Your task to perform on an android device: turn off improve location accuracy Image 0: 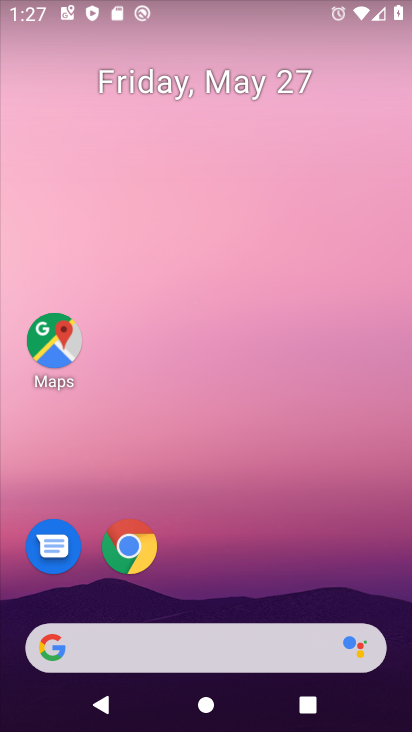
Step 0: drag from (264, 665) to (299, 95)
Your task to perform on an android device: turn off improve location accuracy Image 1: 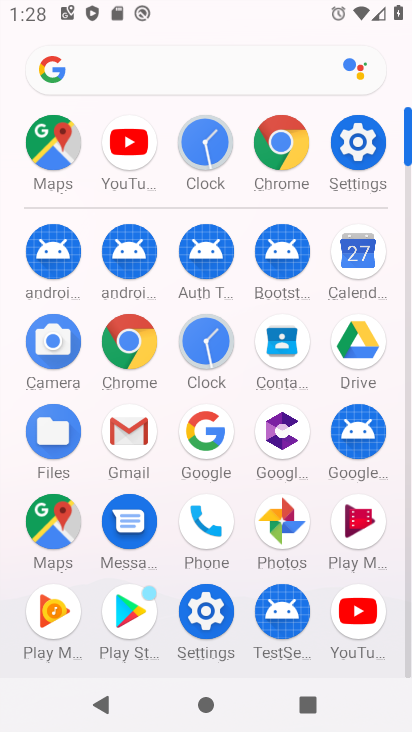
Step 1: click (349, 171)
Your task to perform on an android device: turn off improve location accuracy Image 2: 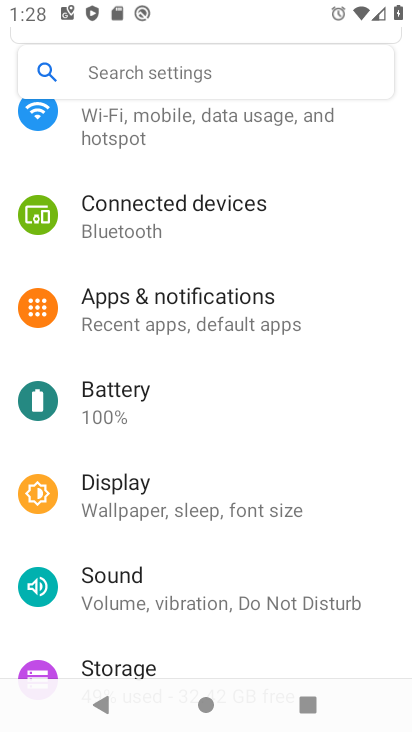
Step 2: click (231, 77)
Your task to perform on an android device: turn off improve location accuracy Image 3: 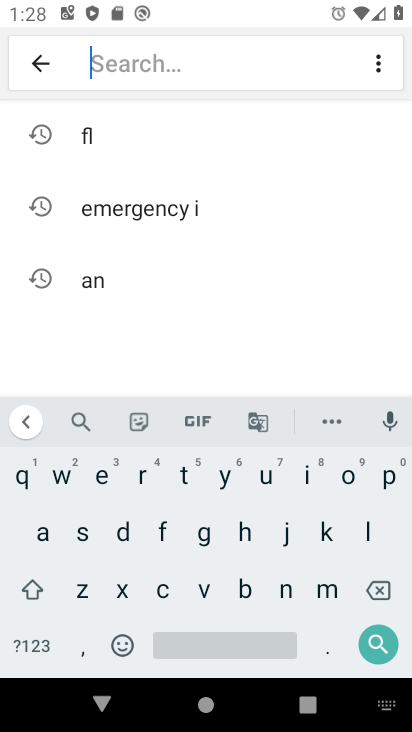
Step 3: click (375, 533)
Your task to perform on an android device: turn off improve location accuracy Image 4: 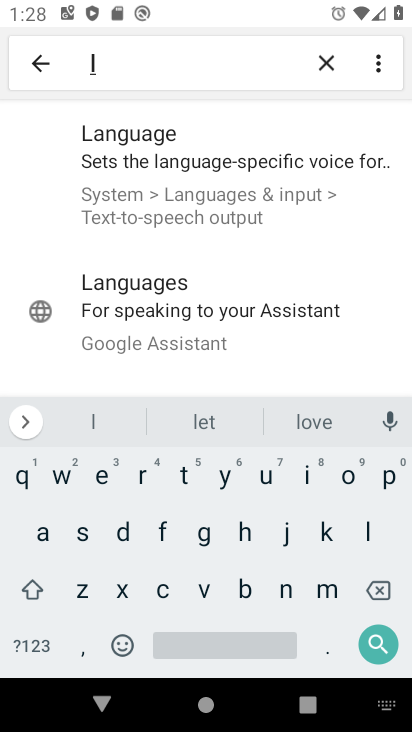
Step 4: click (340, 475)
Your task to perform on an android device: turn off improve location accuracy Image 5: 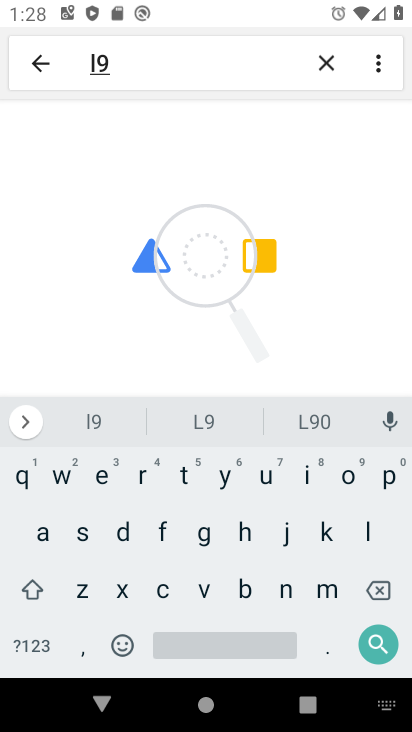
Step 5: click (373, 593)
Your task to perform on an android device: turn off improve location accuracy Image 6: 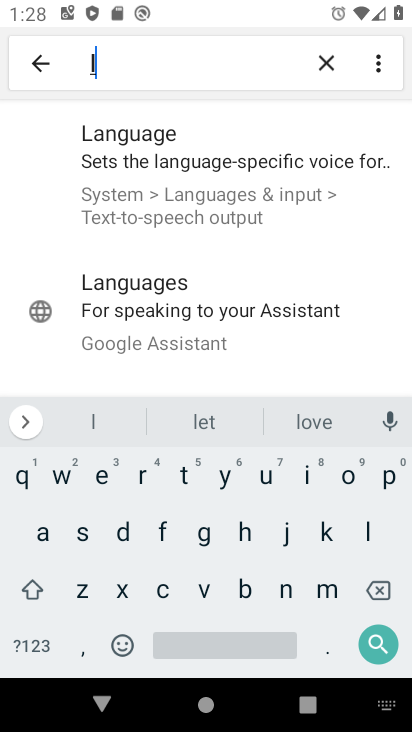
Step 6: click (342, 487)
Your task to perform on an android device: turn off improve location accuracy Image 7: 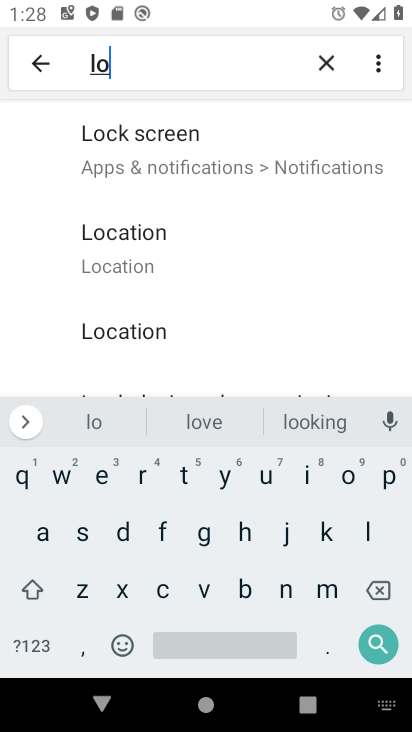
Step 7: click (156, 244)
Your task to perform on an android device: turn off improve location accuracy Image 8: 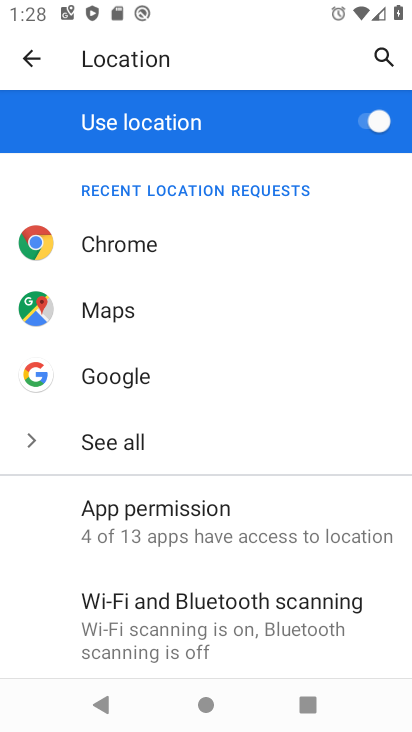
Step 8: drag from (197, 573) to (230, 390)
Your task to perform on an android device: turn off improve location accuracy Image 9: 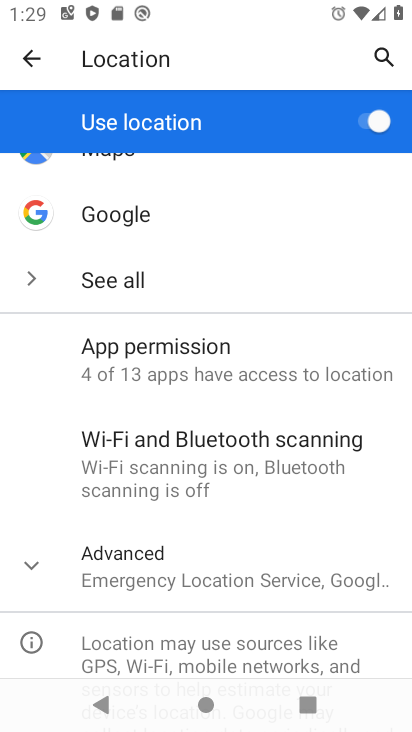
Step 9: click (163, 555)
Your task to perform on an android device: turn off improve location accuracy Image 10: 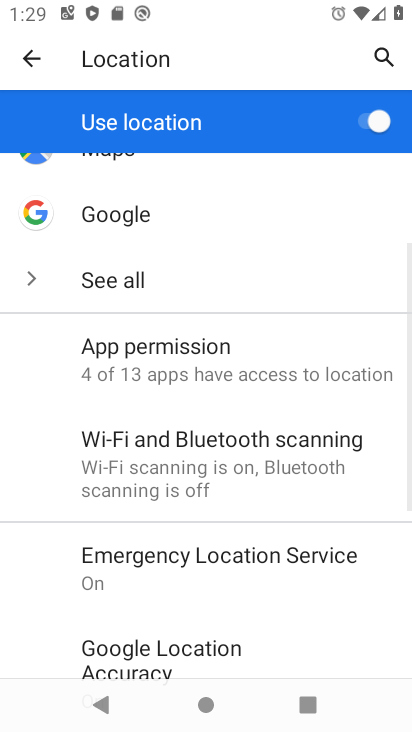
Step 10: drag from (185, 598) to (206, 507)
Your task to perform on an android device: turn off improve location accuracy Image 11: 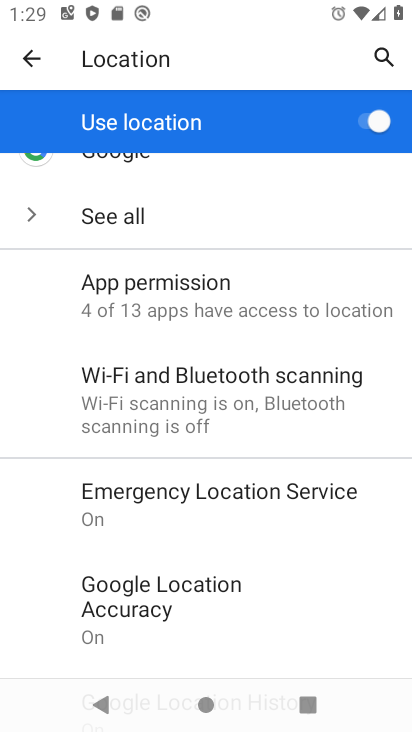
Step 11: click (158, 580)
Your task to perform on an android device: turn off improve location accuracy Image 12: 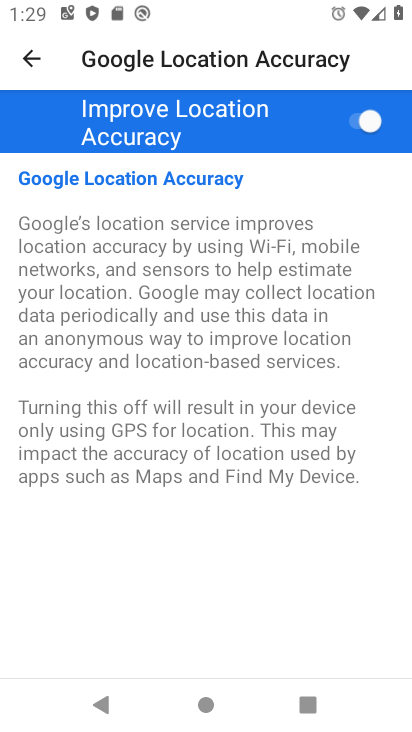
Step 12: click (348, 113)
Your task to perform on an android device: turn off improve location accuracy Image 13: 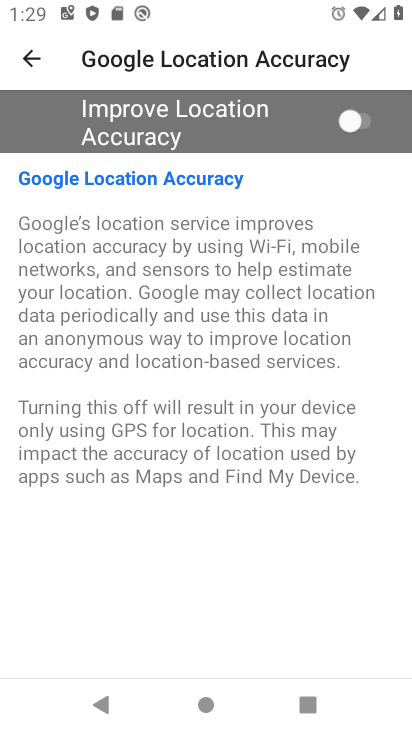
Step 13: task complete